Your task to perform on an android device: turn off javascript in the chrome app Image 0: 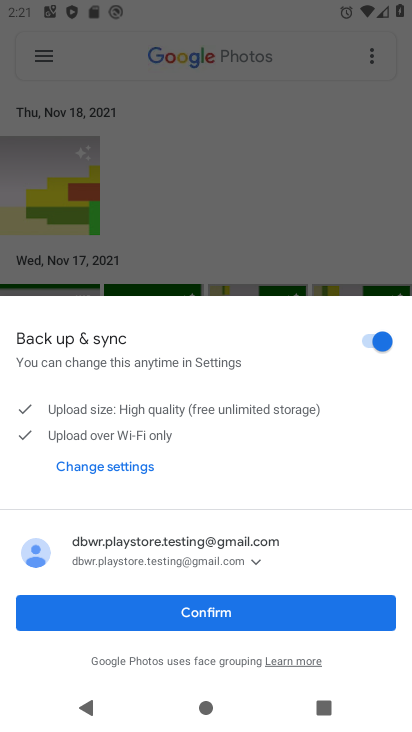
Step 0: press home button
Your task to perform on an android device: turn off javascript in the chrome app Image 1: 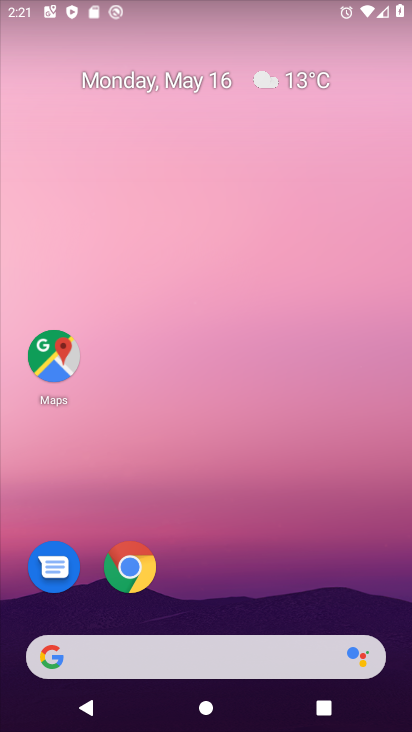
Step 1: click (139, 583)
Your task to perform on an android device: turn off javascript in the chrome app Image 2: 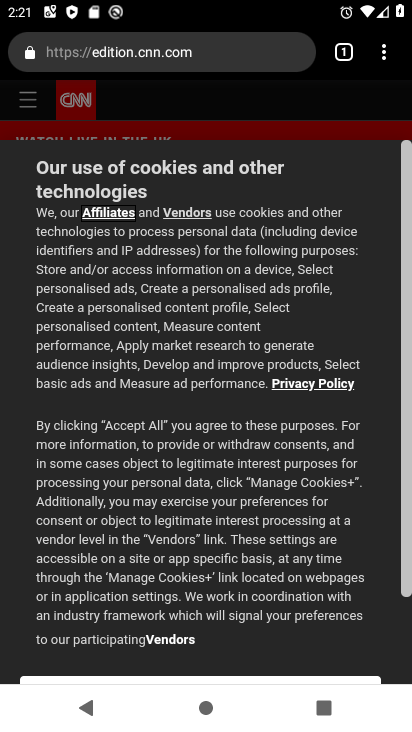
Step 2: drag from (389, 44) to (209, 596)
Your task to perform on an android device: turn off javascript in the chrome app Image 3: 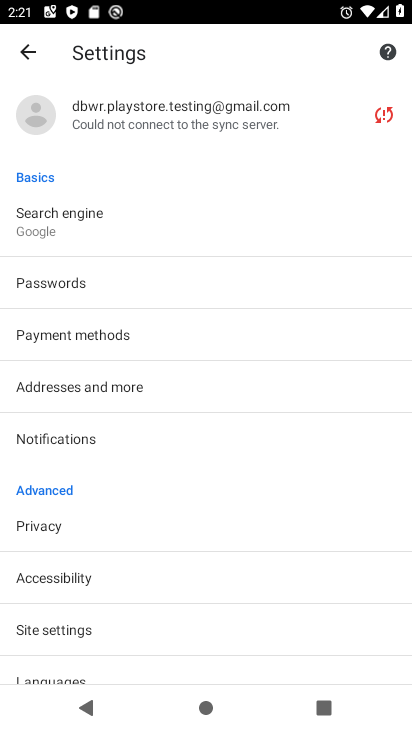
Step 3: click (55, 537)
Your task to perform on an android device: turn off javascript in the chrome app Image 4: 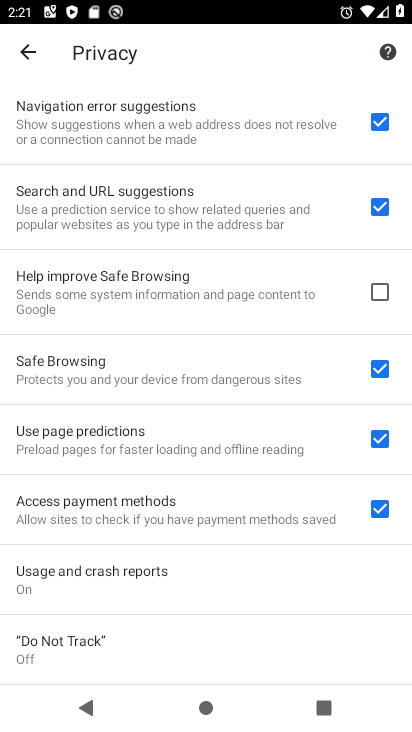
Step 4: drag from (238, 641) to (290, 318)
Your task to perform on an android device: turn off javascript in the chrome app Image 5: 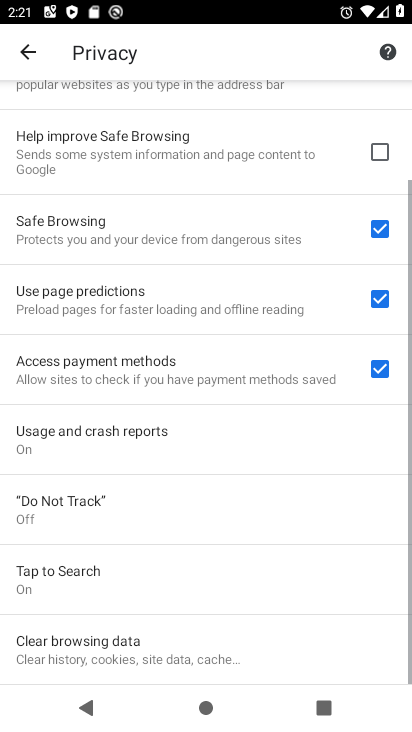
Step 5: drag from (199, 614) to (226, 479)
Your task to perform on an android device: turn off javascript in the chrome app Image 6: 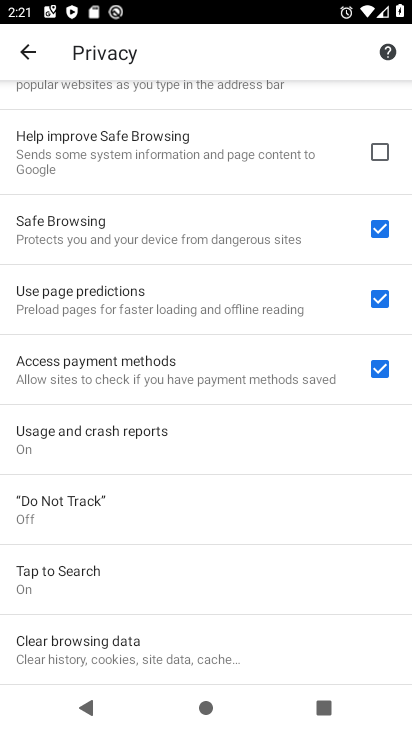
Step 6: press back button
Your task to perform on an android device: turn off javascript in the chrome app Image 7: 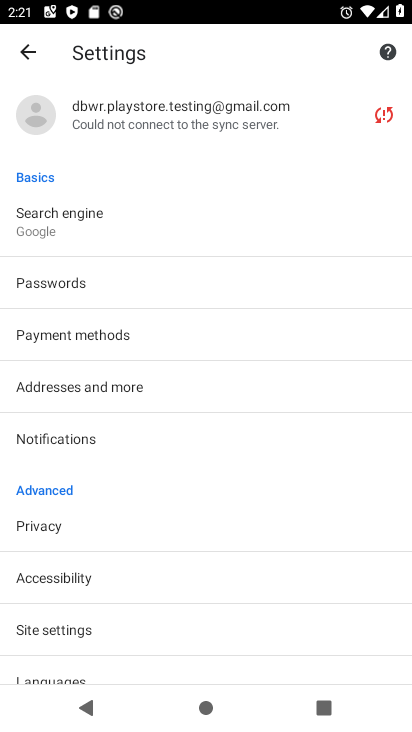
Step 7: click (81, 624)
Your task to perform on an android device: turn off javascript in the chrome app Image 8: 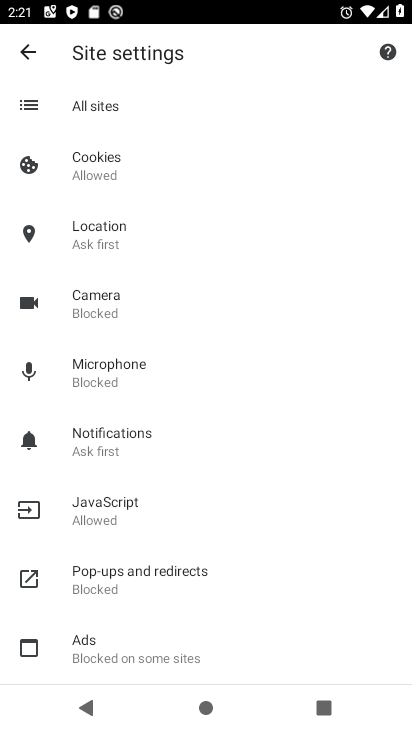
Step 8: click (133, 506)
Your task to perform on an android device: turn off javascript in the chrome app Image 9: 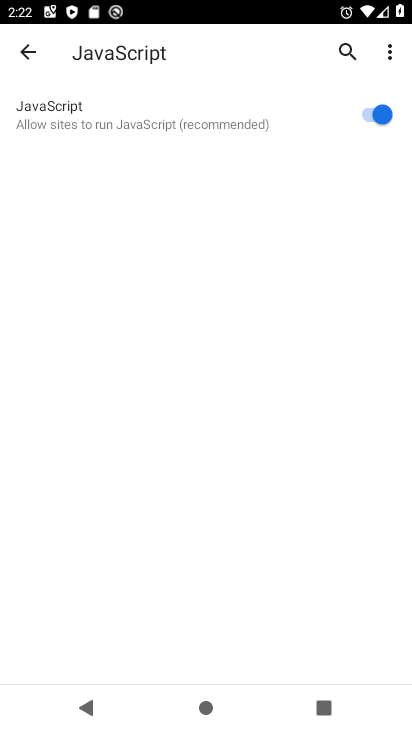
Step 9: click (376, 114)
Your task to perform on an android device: turn off javascript in the chrome app Image 10: 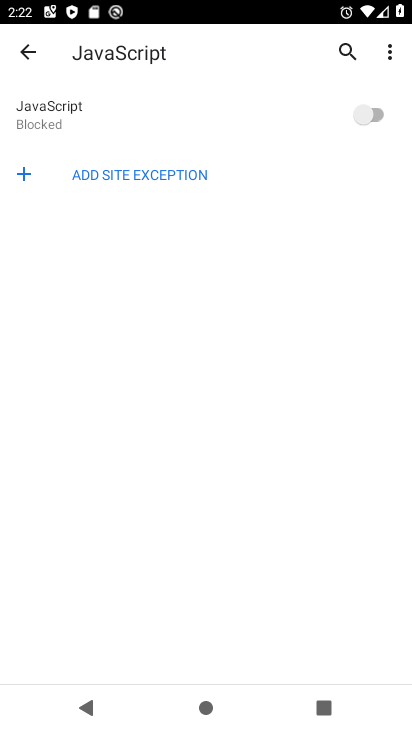
Step 10: task complete